Your task to perform on an android device: What is the news today? Image 0: 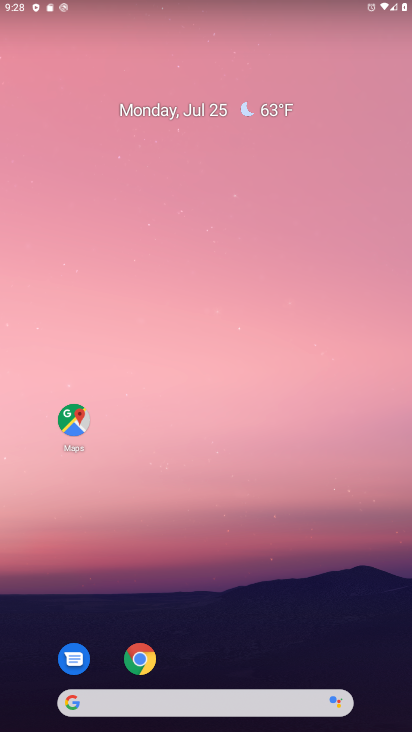
Step 0: drag from (2, 225) to (289, 260)
Your task to perform on an android device: What is the news today? Image 1: 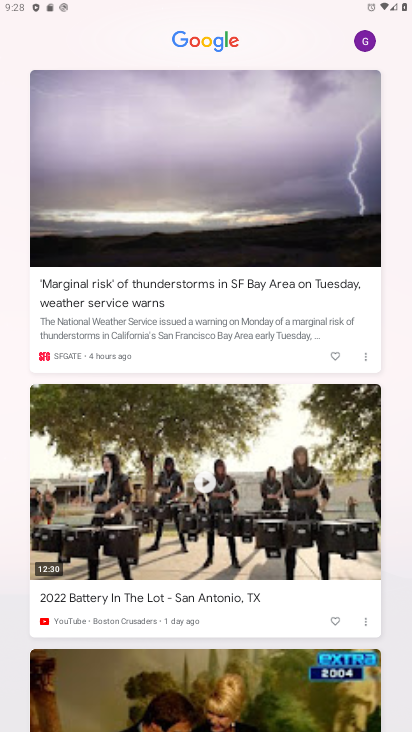
Step 1: task complete